Your task to perform on an android device: turn pop-ups off in chrome Image 0: 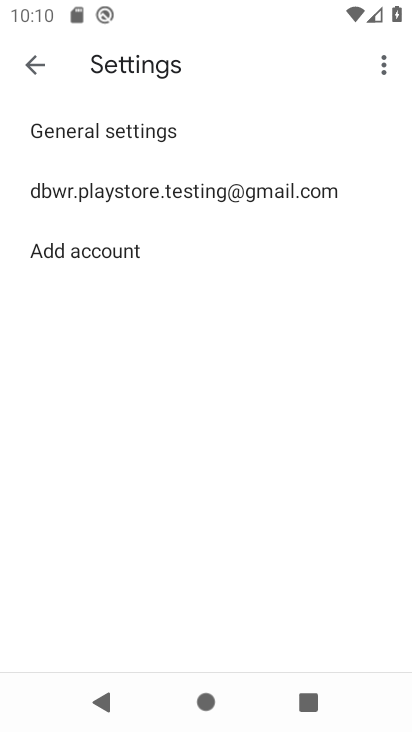
Step 0: press home button
Your task to perform on an android device: turn pop-ups off in chrome Image 1: 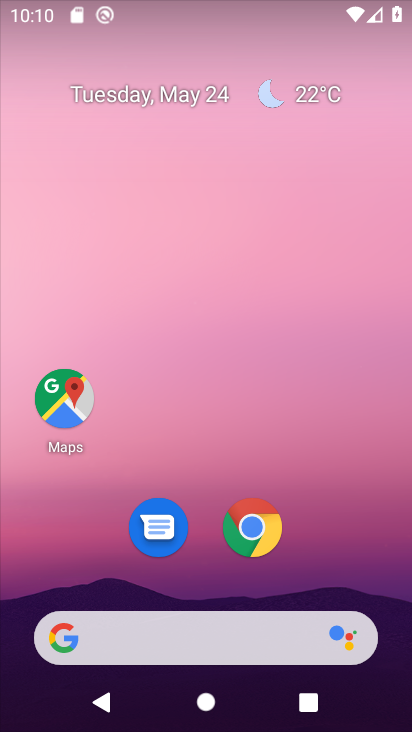
Step 1: click (270, 531)
Your task to perform on an android device: turn pop-ups off in chrome Image 2: 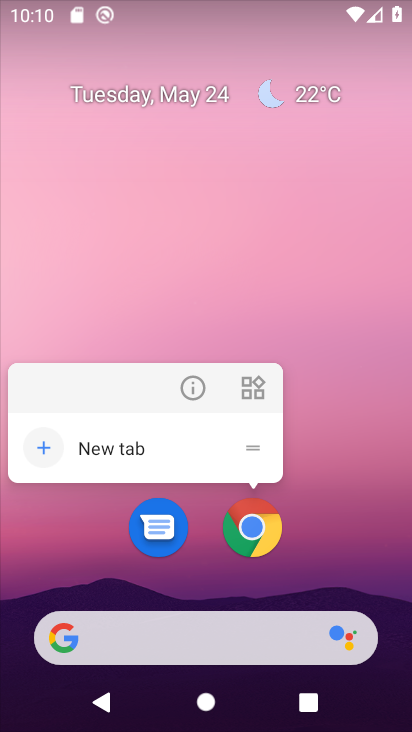
Step 2: click (254, 533)
Your task to perform on an android device: turn pop-ups off in chrome Image 3: 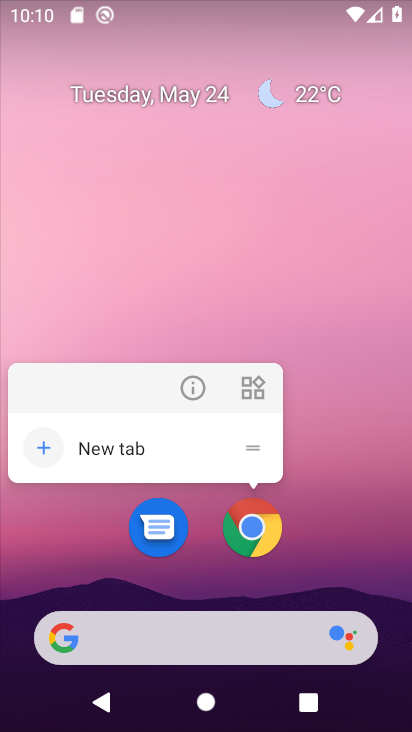
Step 3: click (249, 540)
Your task to perform on an android device: turn pop-ups off in chrome Image 4: 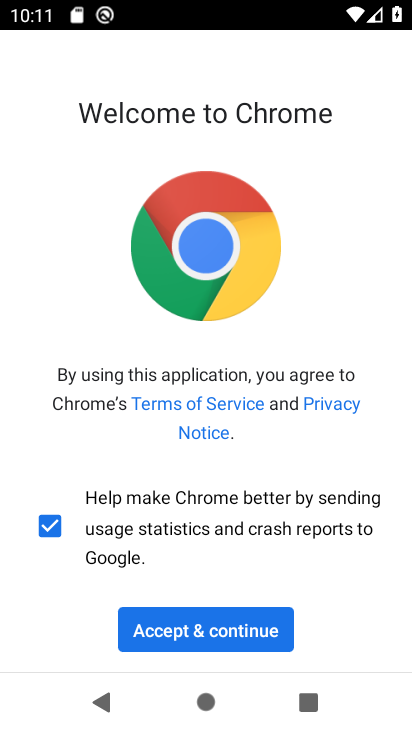
Step 4: click (226, 624)
Your task to perform on an android device: turn pop-ups off in chrome Image 5: 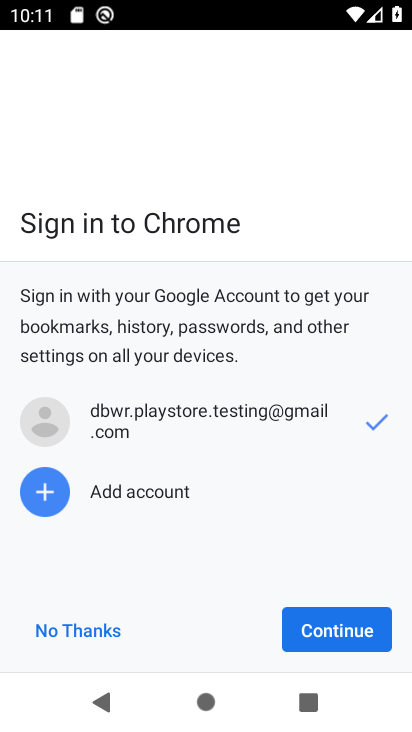
Step 5: click (324, 615)
Your task to perform on an android device: turn pop-ups off in chrome Image 6: 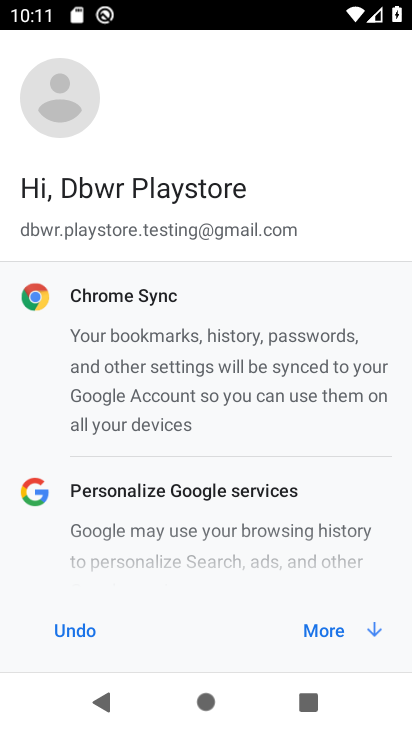
Step 6: click (325, 627)
Your task to perform on an android device: turn pop-ups off in chrome Image 7: 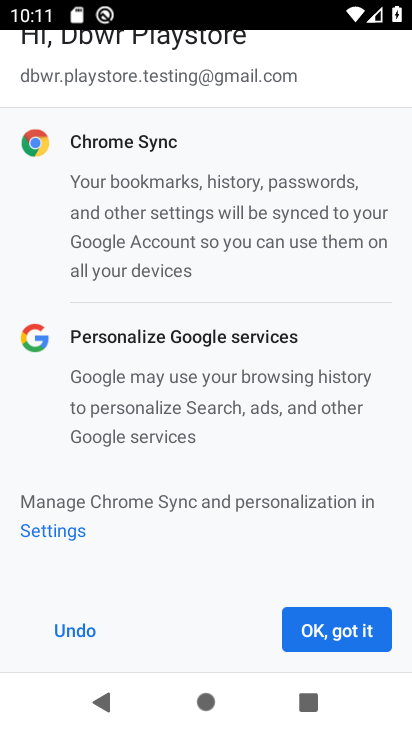
Step 7: click (325, 636)
Your task to perform on an android device: turn pop-ups off in chrome Image 8: 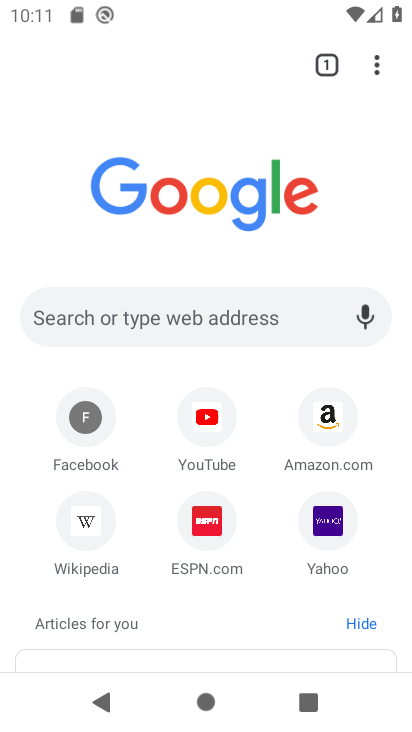
Step 8: drag from (377, 74) to (232, 545)
Your task to perform on an android device: turn pop-ups off in chrome Image 9: 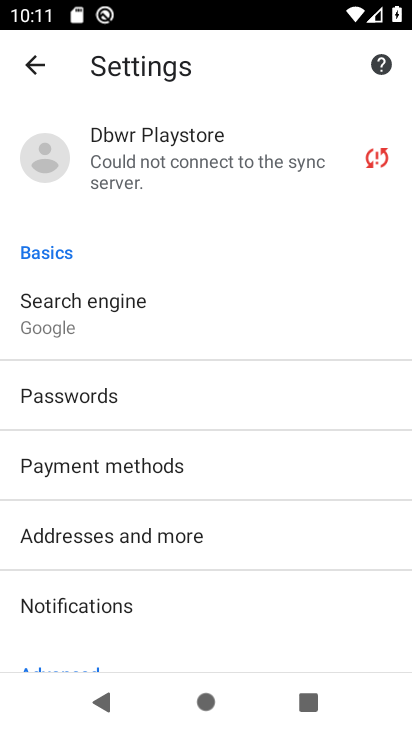
Step 9: drag from (138, 601) to (287, 169)
Your task to perform on an android device: turn pop-ups off in chrome Image 10: 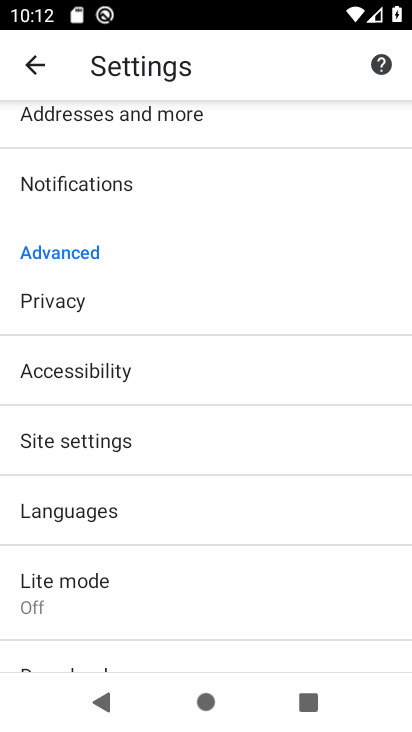
Step 10: drag from (176, 596) to (279, 376)
Your task to perform on an android device: turn pop-ups off in chrome Image 11: 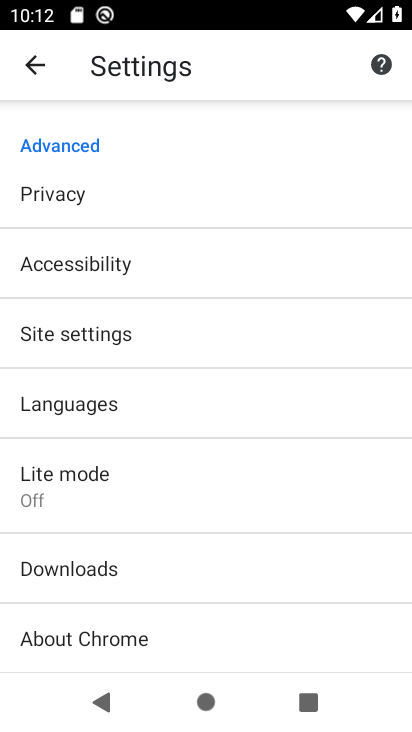
Step 11: click (105, 324)
Your task to perform on an android device: turn pop-ups off in chrome Image 12: 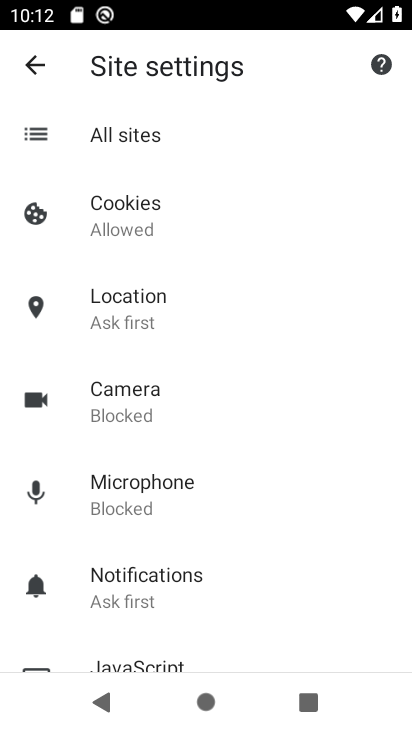
Step 12: drag from (259, 455) to (318, 178)
Your task to perform on an android device: turn pop-ups off in chrome Image 13: 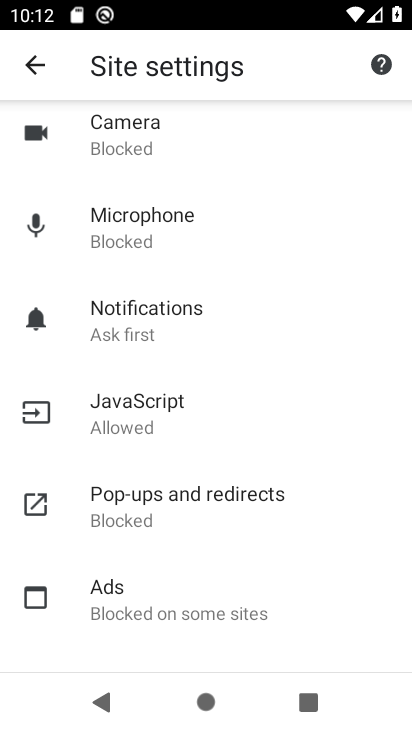
Step 13: click (177, 501)
Your task to perform on an android device: turn pop-ups off in chrome Image 14: 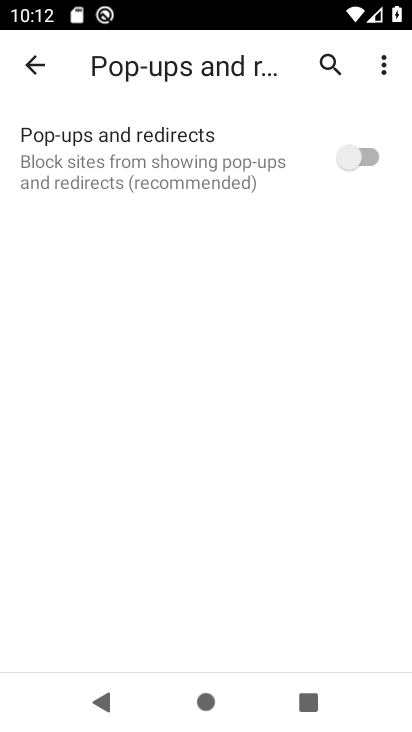
Step 14: task complete